Your task to perform on an android device: Go to display settings Image 0: 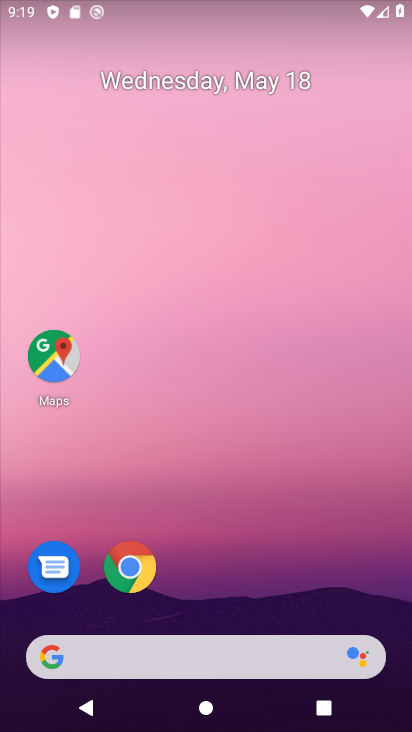
Step 0: drag from (340, 585) to (253, 41)
Your task to perform on an android device: Go to display settings Image 1: 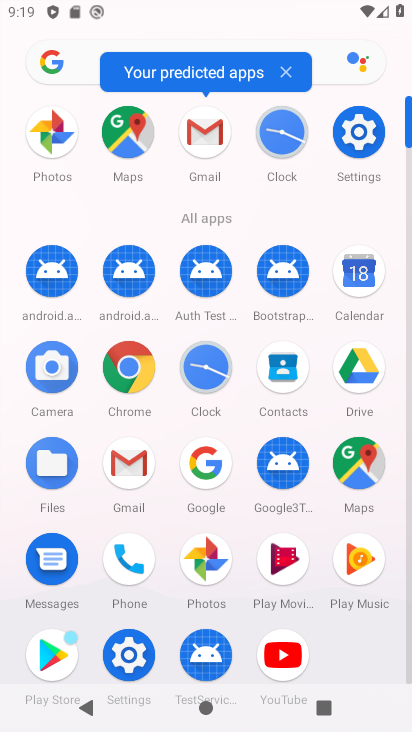
Step 1: click (372, 127)
Your task to perform on an android device: Go to display settings Image 2: 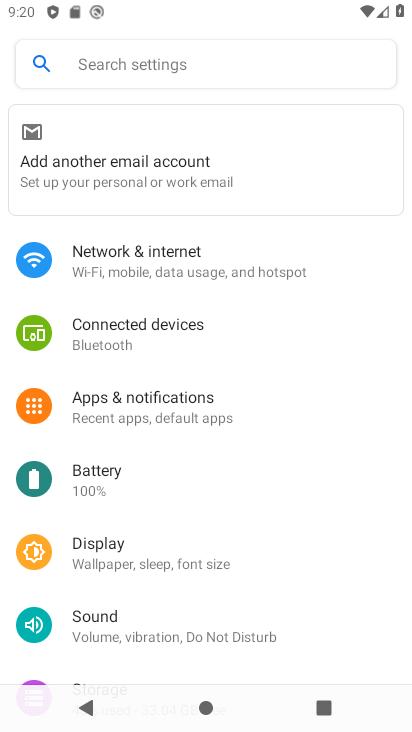
Step 2: click (157, 551)
Your task to perform on an android device: Go to display settings Image 3: 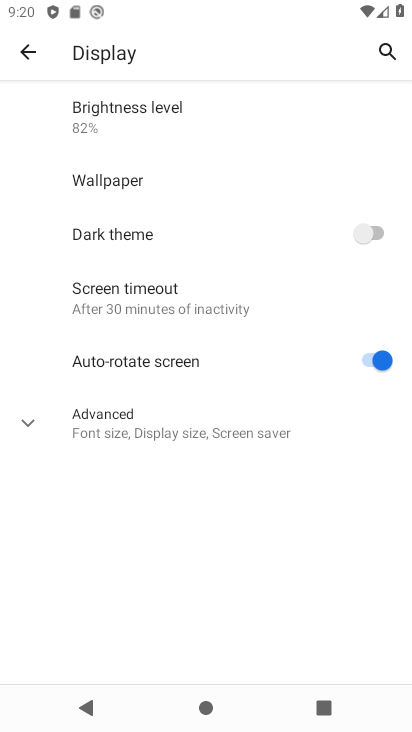
Step 3: task complete